Your task to perform on an android device: Open calendar and show me the third week of next month Image 0: 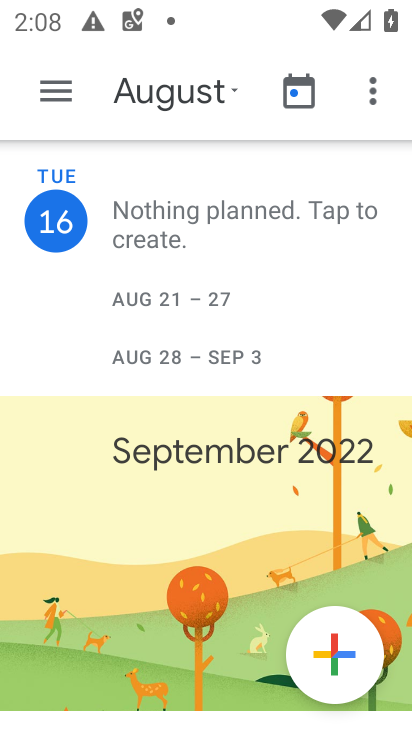
Step 0: press home button
Your task to perform on an android device: Open calendar and show me the third week of next month Image 1: 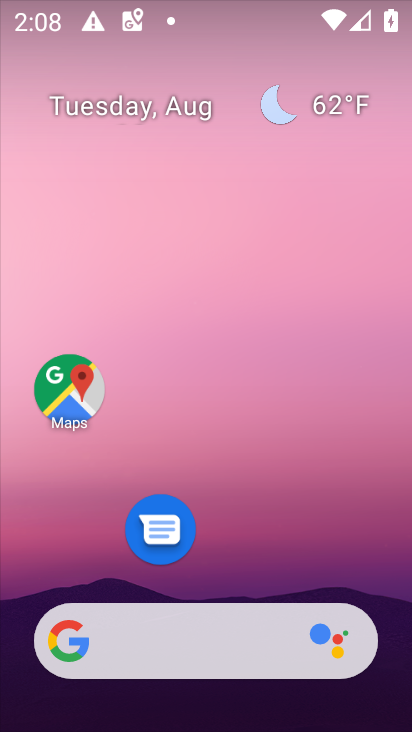
Step 1: drag from (292, 583) to (275, 255)
Your task to perform on an android device: Open calendar and show me the third week of next month Image 2: 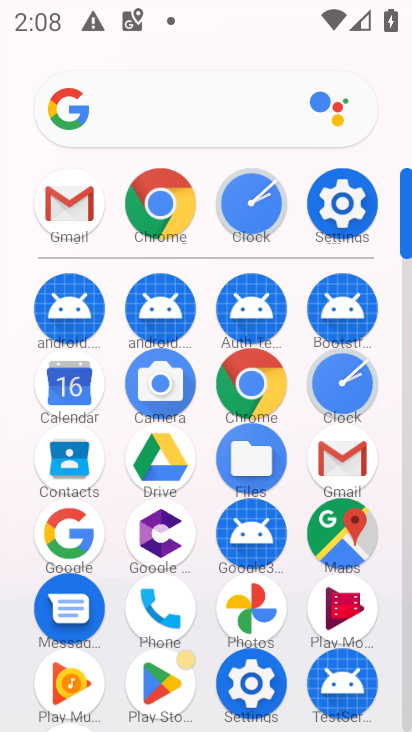
Step 2: click (49, 394)
Your task to perform on an android device: Open calendar and show me the third week of next month Image 3: 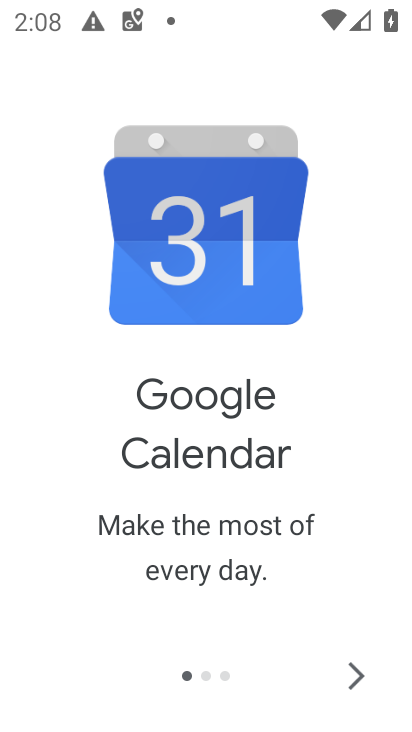
Step 3: click (353, 706)
Your task to perform on an android device: Open calendar and show me the third week of next month Image 4: 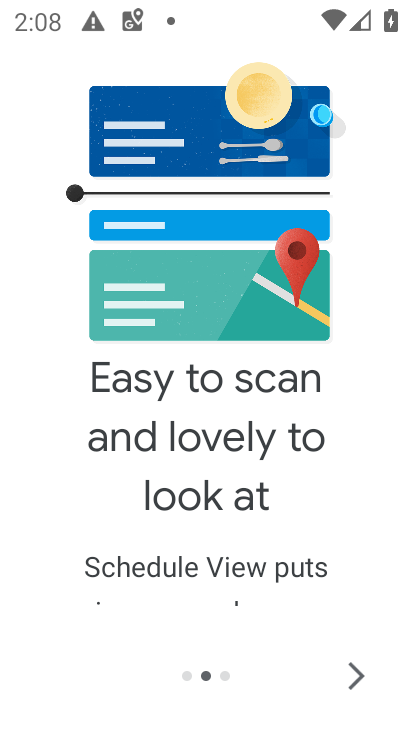
Step 4: click (353, 706)
Your task to perform on an android device: Open calendar and show me the third week of next month Image 5: 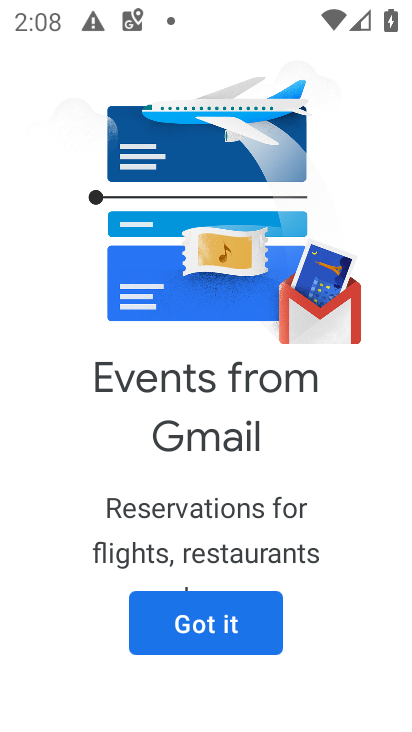
Step 5: click (232, 650)
Your task to perform on an android device: Open calendar and show me the third week of next month Image 6: 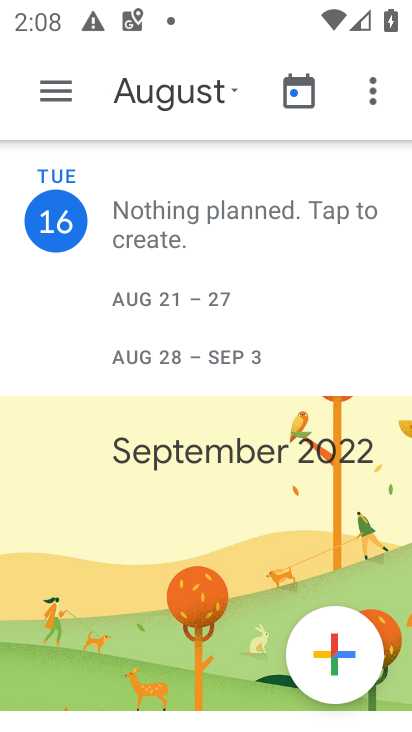
Step 6: task complete